Your task to perform on an android device: turn on improve location accuracy Image 0: 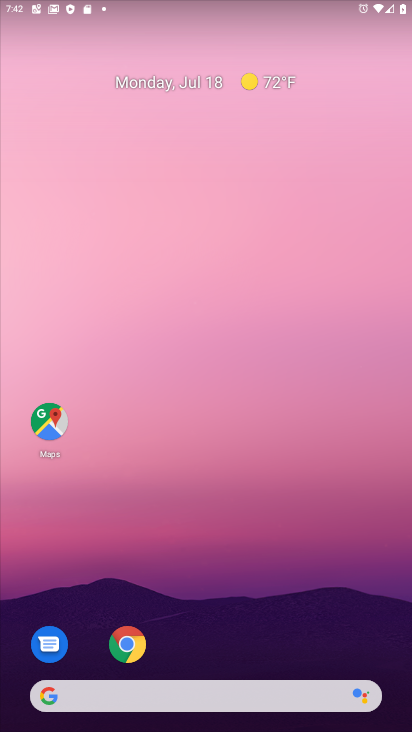
Step 0: drag from (369, 660) to (166, 60)
Your task to perform on an android device: turn on improve location accuracy Image 1: 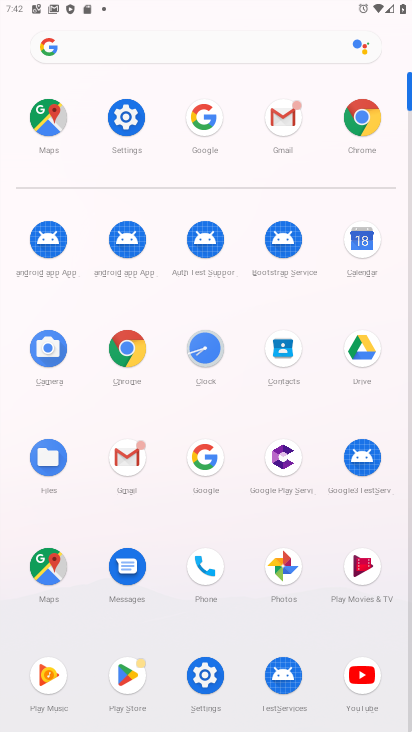
Step 1: click (209, 682)
Your task to perform on an android device: turn on improve location accuracy Image 2: 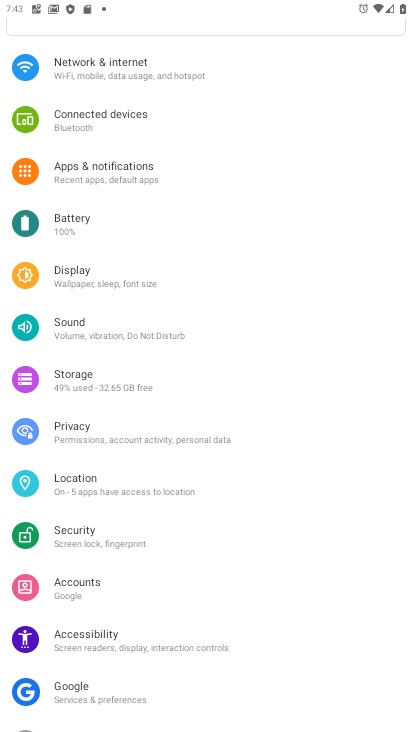
Step 2: click (74, 489)
Your task to perform on an android device: turn on improve location accuracy Image 3: 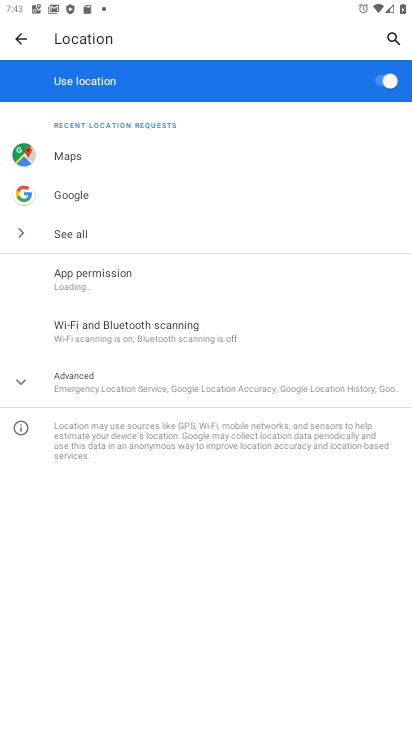
Step 3: click (113, 384)
Your task to perform on an android device: turn on improve location accuracy Image 4: 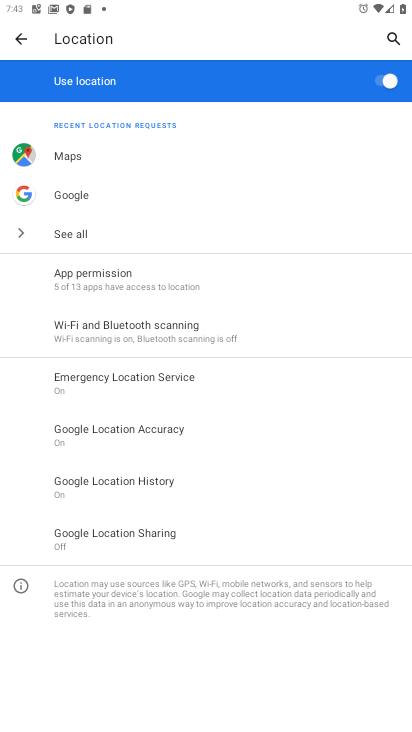
Step 4: click (124, 431)
Your task to perform on an android device: turn on improve location accuracy Image 5: 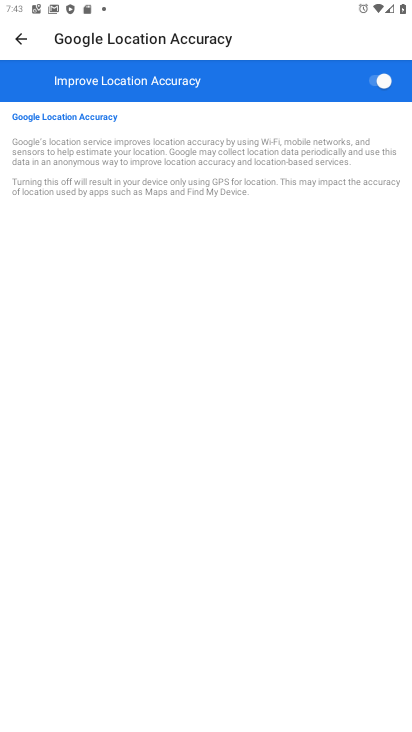
Step 5: task complete